Your task to perform on an android device: Go to eBay Image 0: 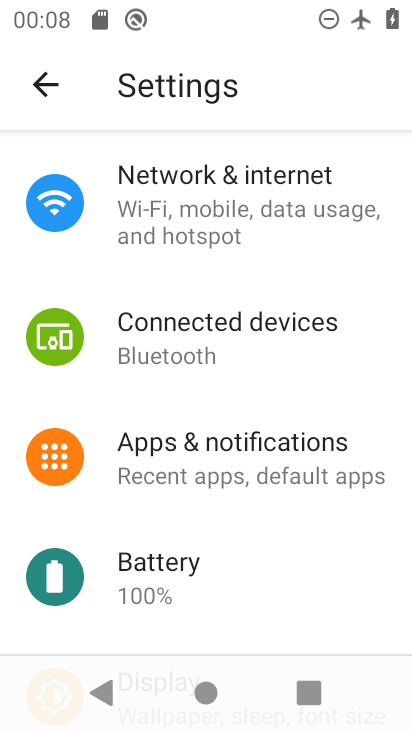
Step 0: press home button
Your task to perform on an android device: Go to eBay Image 1: 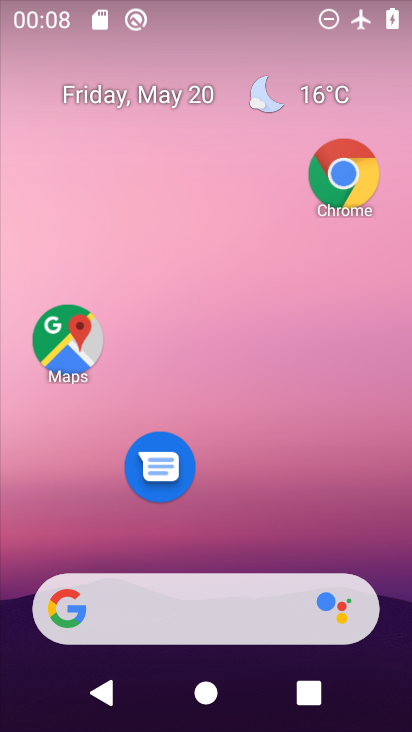
Step 1: drag from (234, 473) to (204, 291)
Your task to perform on an android device: Go to eBay Image 2: 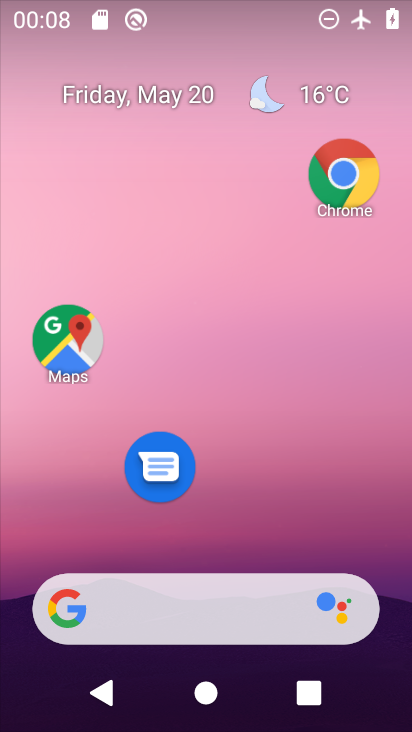
Step 2: click (338, 165)
Your task to perform on an android device: Go to eBay Image 3: 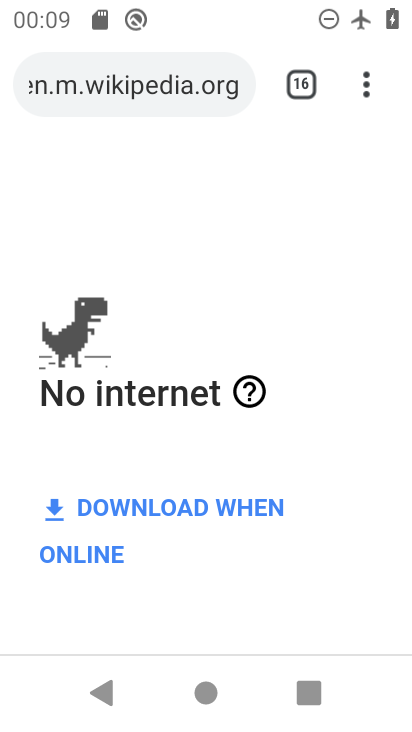
Step 3: click (362, 85)
Your task to perform on an android device: Go to eBay Image 4: 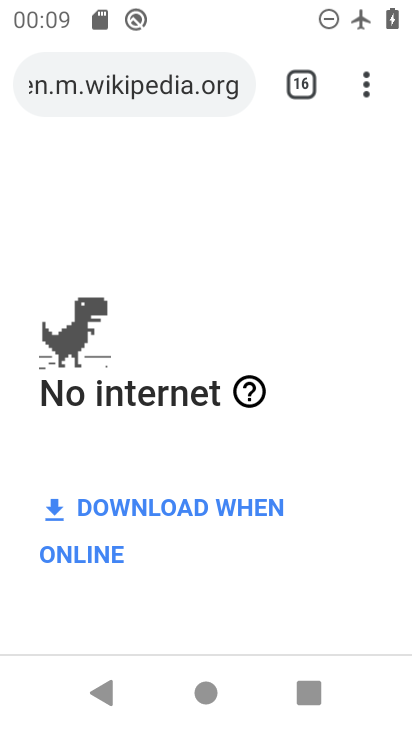
Step 4: click (352, 78)
Your task to perform on an android device: Go to eBay Image 5: 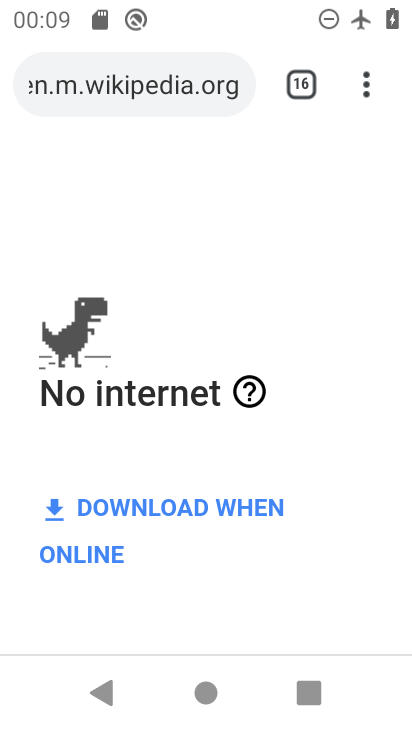
Step 5: click (408, 83)
Your task to perform on an android device: Go to eBay Image 6: 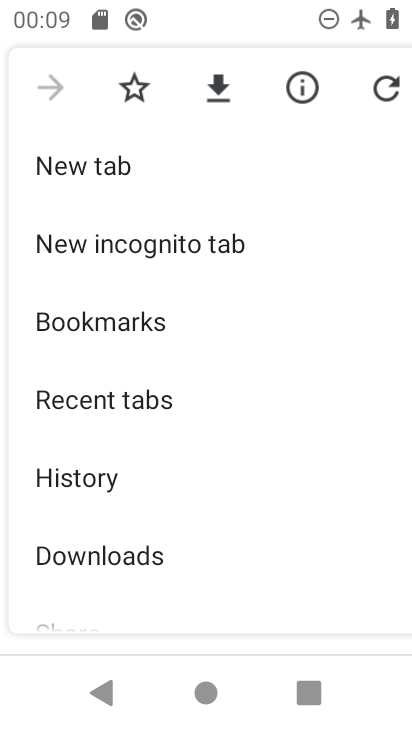
Step 6: click (159, 166)
Your task to perform on an android device: Go to eBay Image 7: 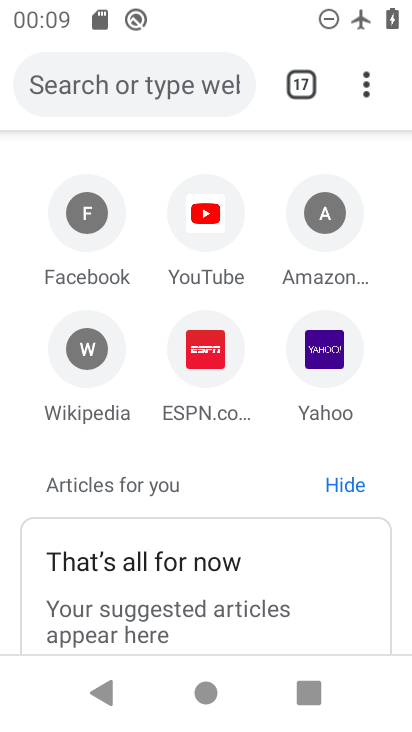
Step 7: click (170, 84)
Your task to perform on an android device: Go to eBay Image 8: 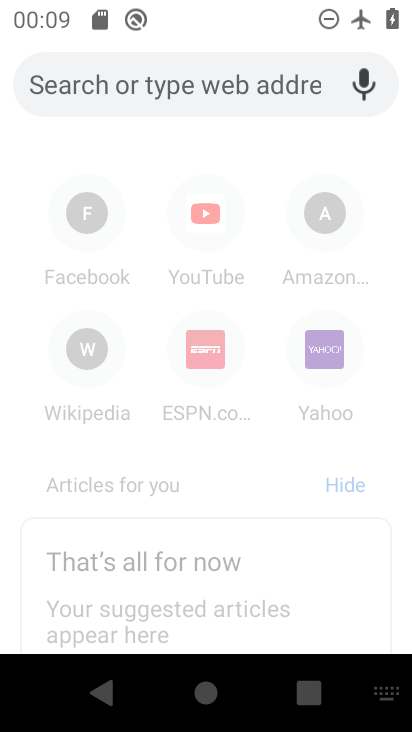
Step 8: type "eBay"
Your task to perform on an android device: Go to eBay Image 9: 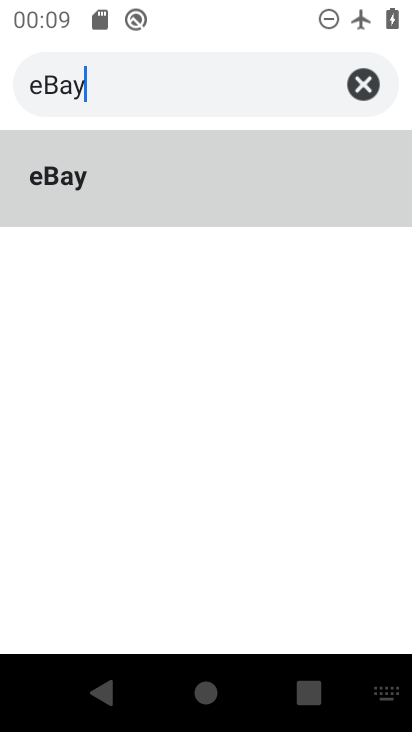
Step 9: click (130, 205)
Your task to perform on an android device: Go to eBay Image 10: 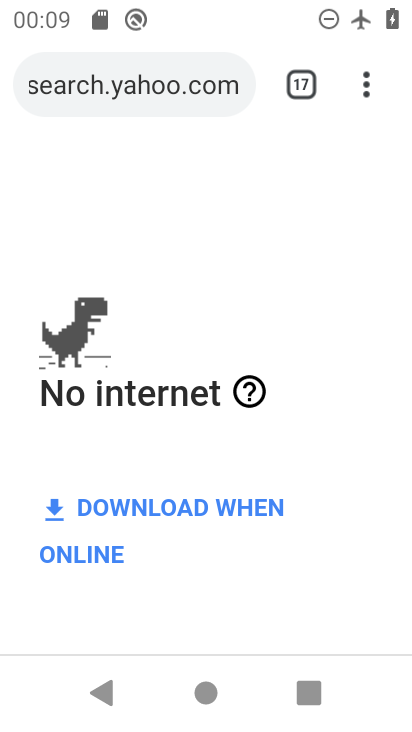
Step 10: task complete